Your task to perform on an android device: set the timer Image 0: 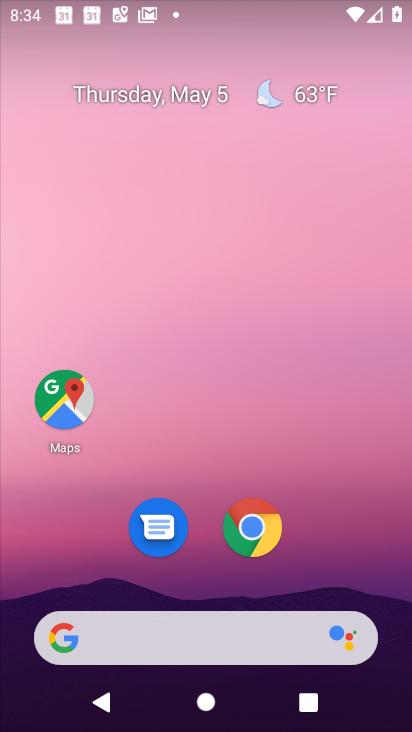
Step 0: drag from (277, 705) to (222, 49)
Your task to perform on an android device: set the timer Image 1: 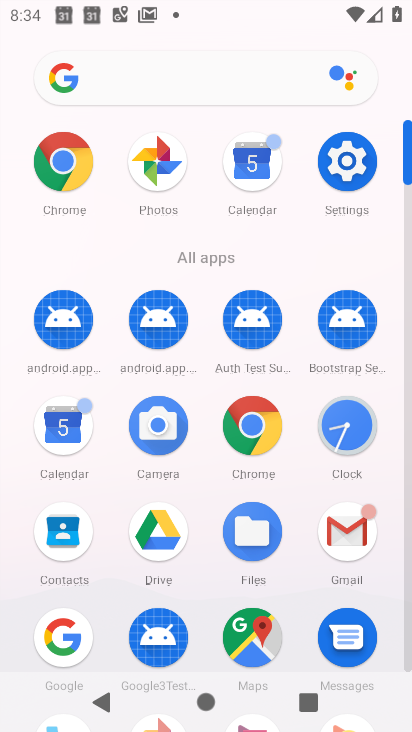
Step 1: click (355, 410)
Your task to perform on an android device: set the timer Image 2: 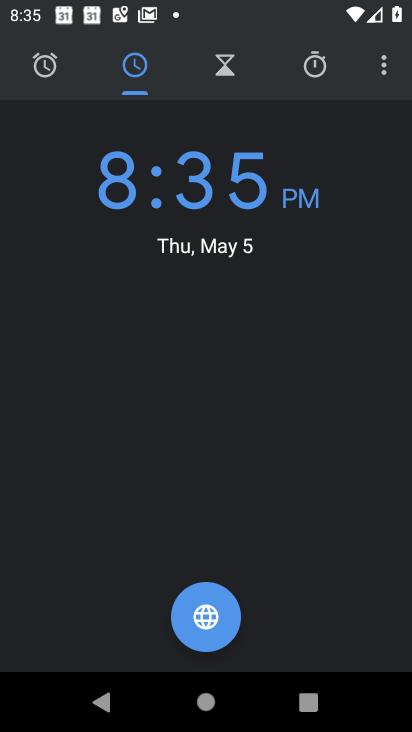
Step 2: click (230, 81)
Your task to perform on an android device: set the timer Image 3: 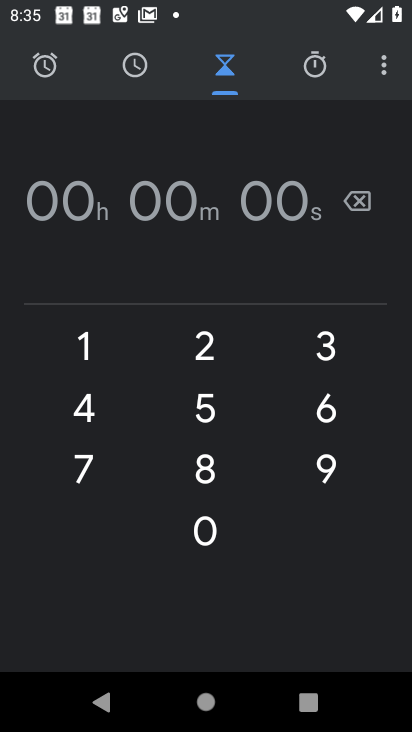
Step 3: click (210, 311)
Your task to perform on an android device: set the timer Image 4: 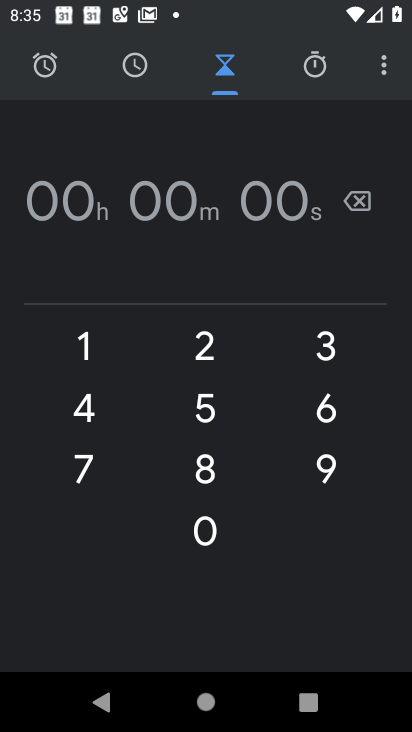
Step 4: click (199, 400)
Your task to perform on an android device: set the timer Image 5: 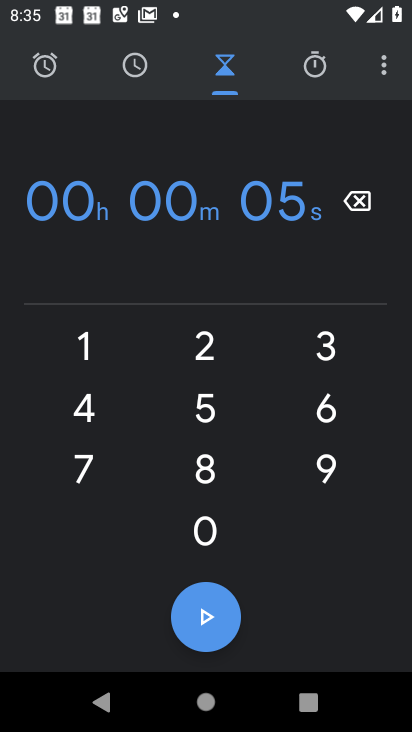
Step 5: click (334, 417)
Your task to perform on an android device: set the timer Image 6: 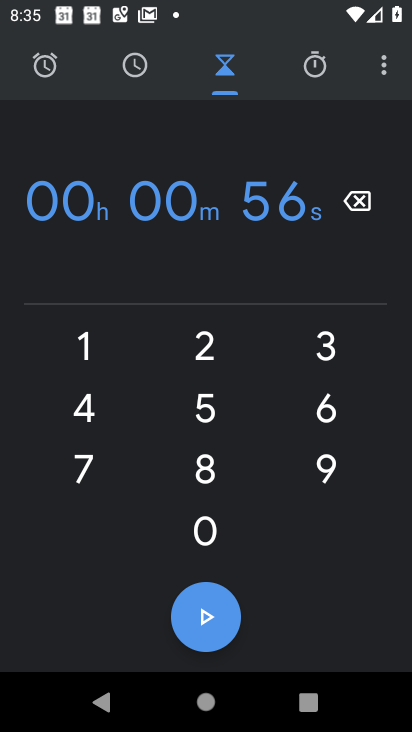
Step 6: task complete